Your task to perform on an android device: turn off data saver in the chrome app Image 0: 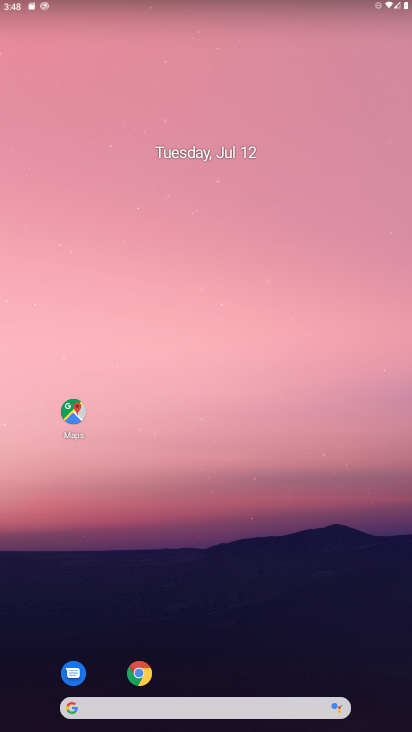
Step 0: click (140, 673)
Your task to perform on an android device: turn off data saver in the chrome app Image 1: 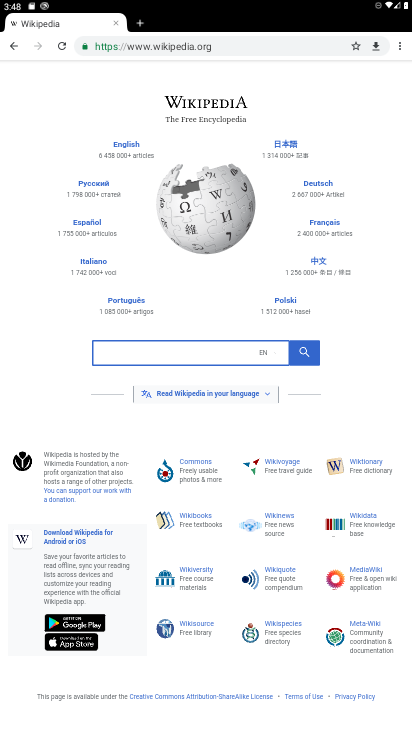
Step 1: click (399, 46)
Your task to perform on an android device: turn off data saver in the chrome app Image 2: 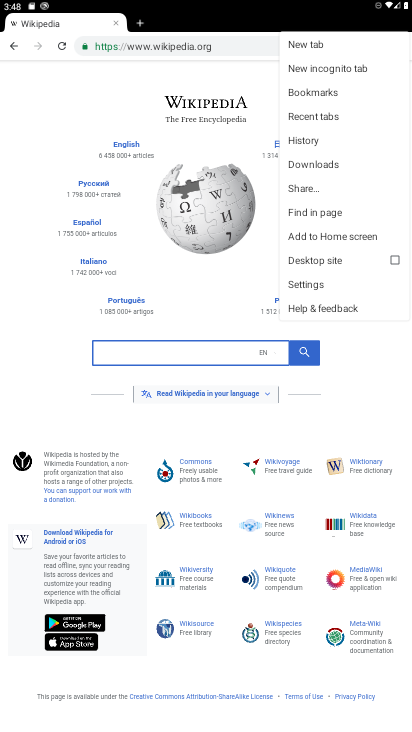
Step 2: click (312, 283)
Your task to perform on an android device: turn off data saver in the chrome app Image 3: 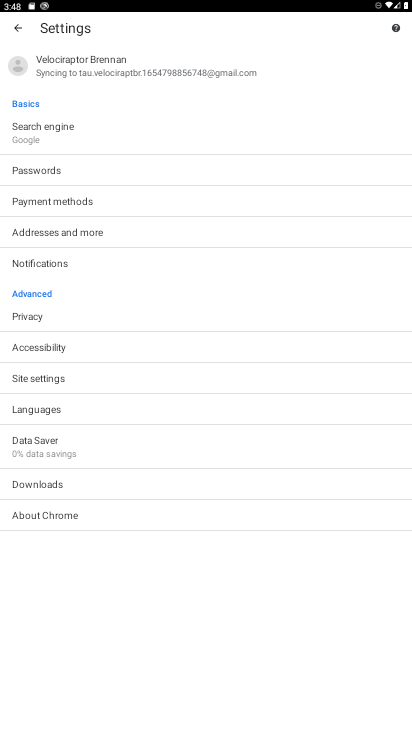
Step 3: click (37, 444)
Your task to perform on an android device: turn off data saver in the chrome app Image 4: 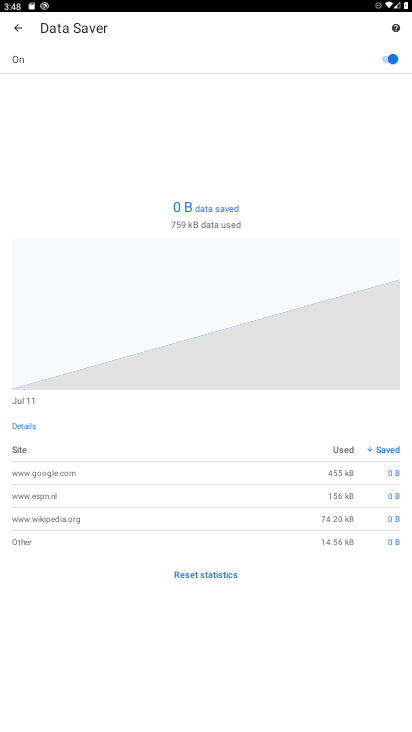
Step 4: click (391, 58)
Your task to perform on an android device: turn off data saver in the chrome app Image 5: 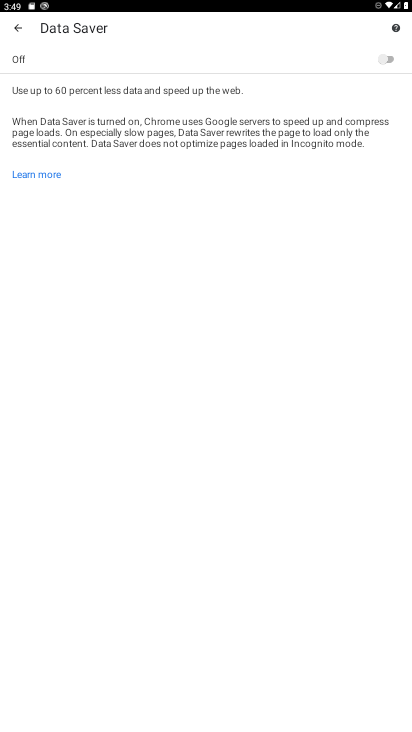
Step 5: task complete